Your task to perform on an android device: change alarm snooze length Image 0: 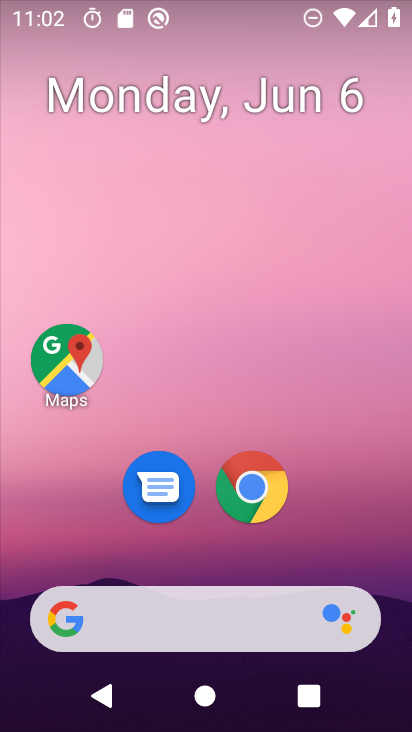
Step 0: drag from (397, 615) to (303, 172)
Your task to perform on an android device: change alarm snooze length Image 1: 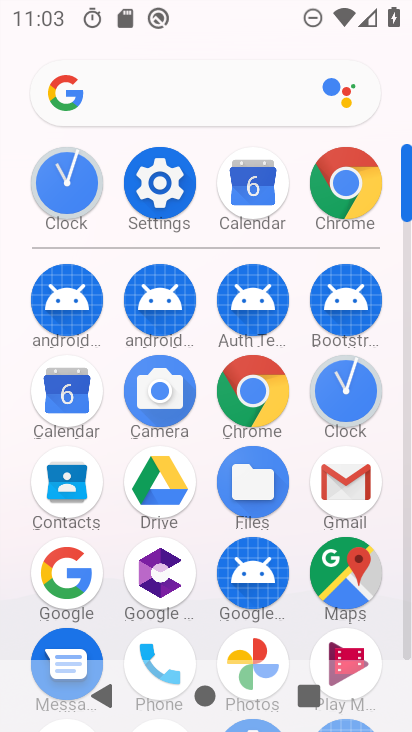
Step 1: click (326, 402)
Your task to perform on an android device: change alarm snooze length Image 2: 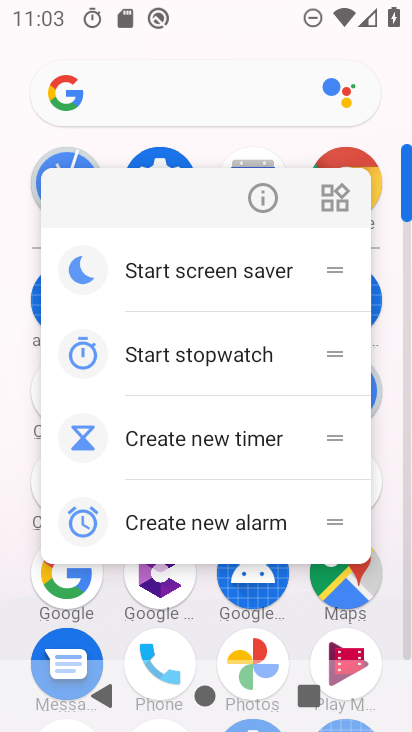
Step 2: click (380, 486)
Your task to perform on an android device: change alarm snooze length Image 3: 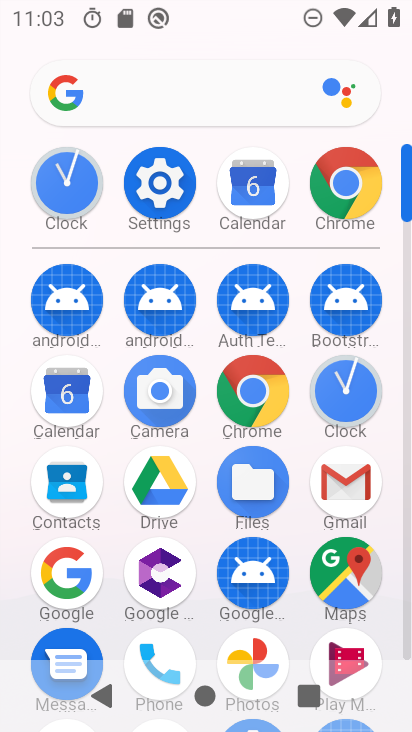
Step 3: click (336, 379)
Your task to perform on an android device: change alarm snooze length Image 4: 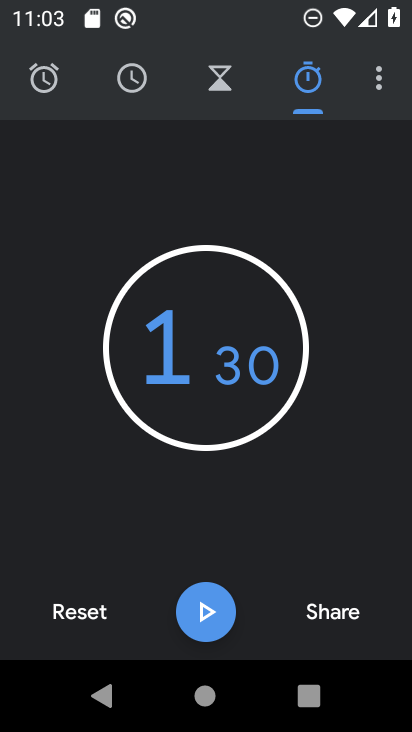
Step 4: click (380, 72)
Your task to perform on an android device: change alarm snooze length Image 5: 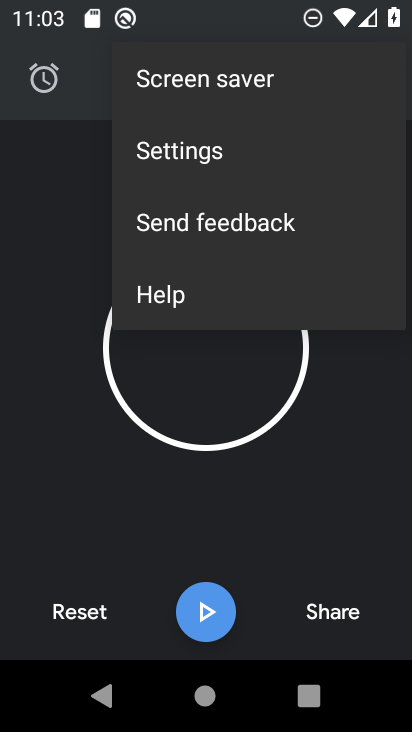
Step 5: click (193, 152)
Your task to perform on an android device: change alarm snooze length Image 6: 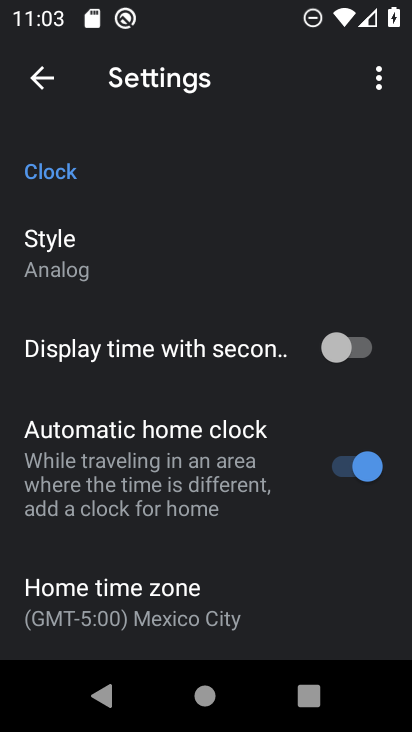
Step 6: drag from (159, 623) to (179, 150)
Your task to perform on an android device: change alarm snooze length Image 7: 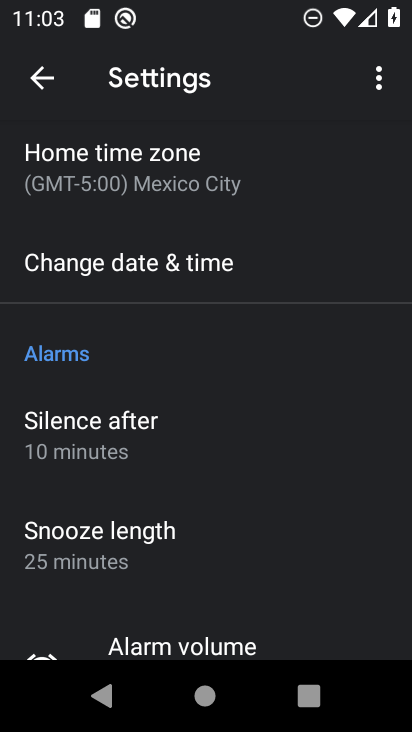
Step 7: click (165, 563)
Your task to perform on an android device: change alarm snooze length Image 8: 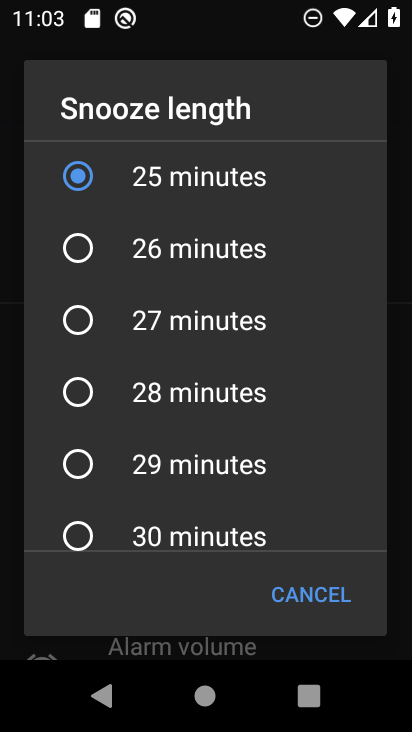
Step 8: click (76, 539)
Your task to perform on an android device: change alarm snooze length Image 9: 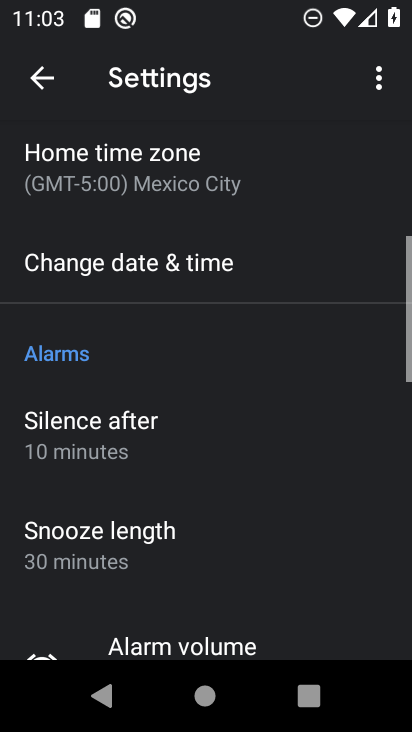
Step 9: task complete